Your task to perform on an android device: remove spam from my inbox in the gmail app Image 0: 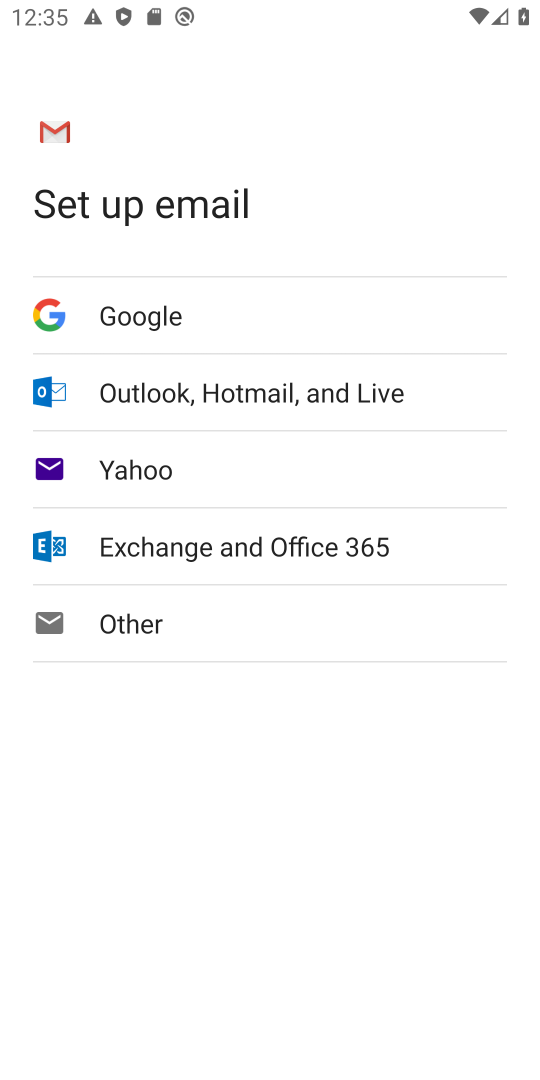
Step 0: press home button
Your task to perform on an android device: remove spam from my inbox in the gmail app Image 1: 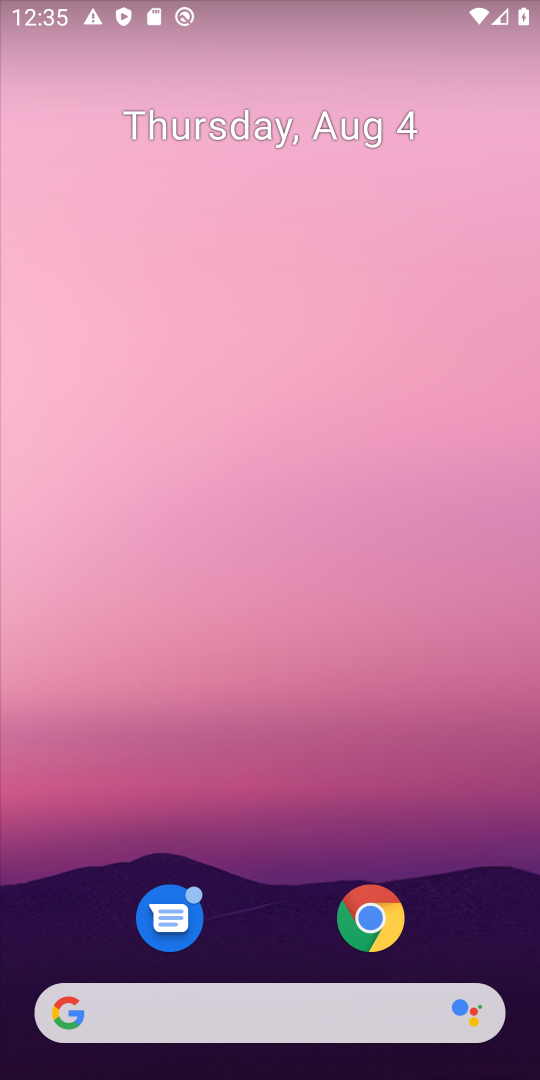
Step 1: drag from (293, 948) to (288, 207)
Your task to perform on an android device: remove spam from my inbox in the gmail app Image 2: 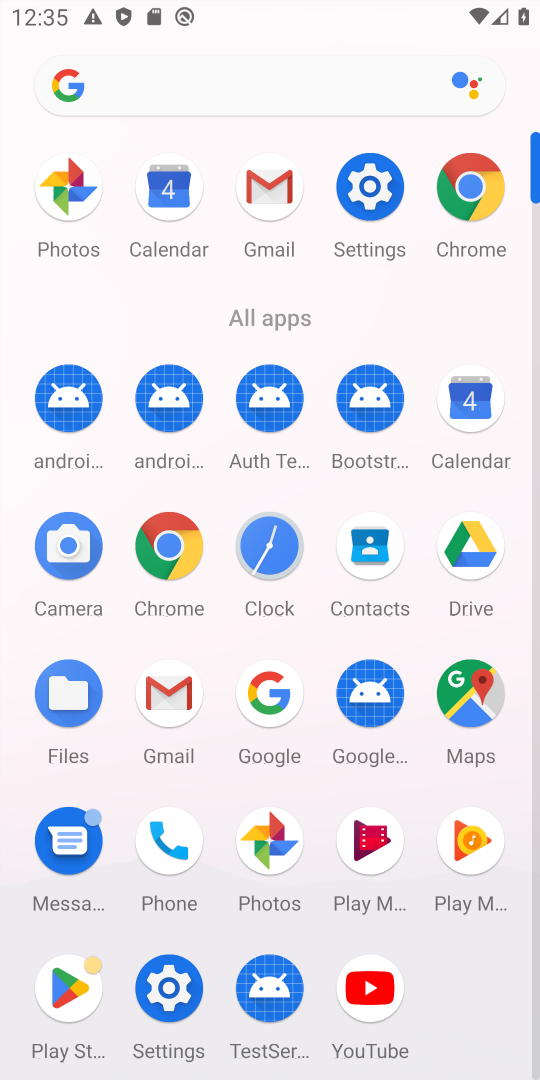
Step 2: click (260, 199)
Your task to perform on an android device: remove spam from my inbox in the gmail app Image 3: 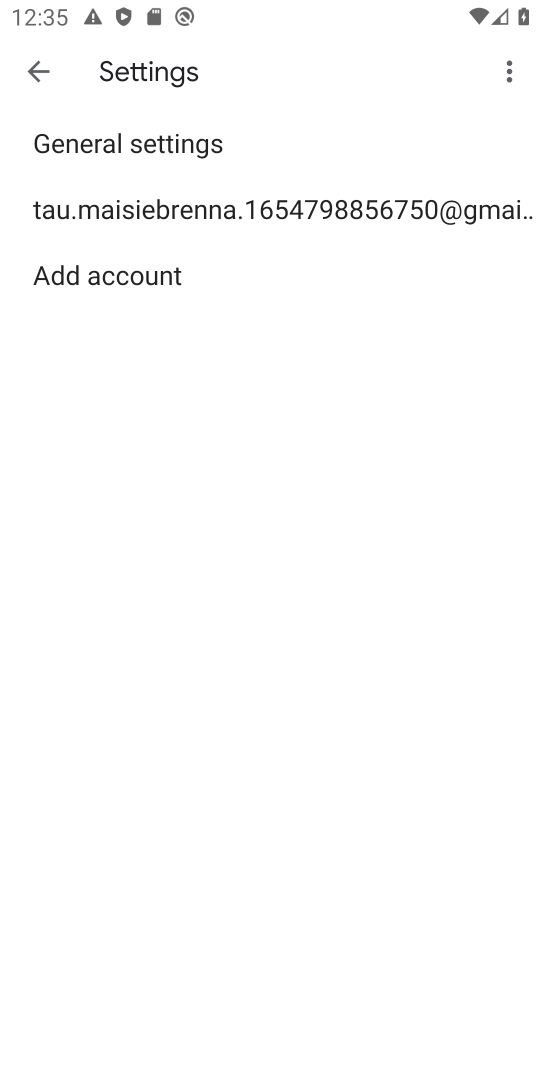
Step 3: click (85, 221)
Your task to perform on an android device: remove spam from my inbox in the gmail app Image 4: 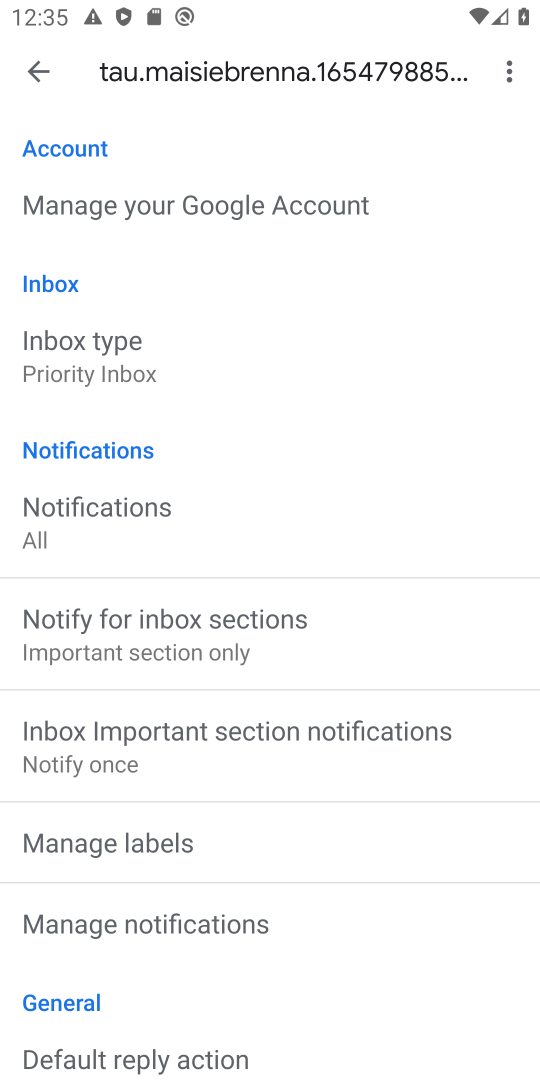
Step 4: click (26, 82)
Your task to perform on an android device: remove spam from my inbox in the gmail app Image 5: 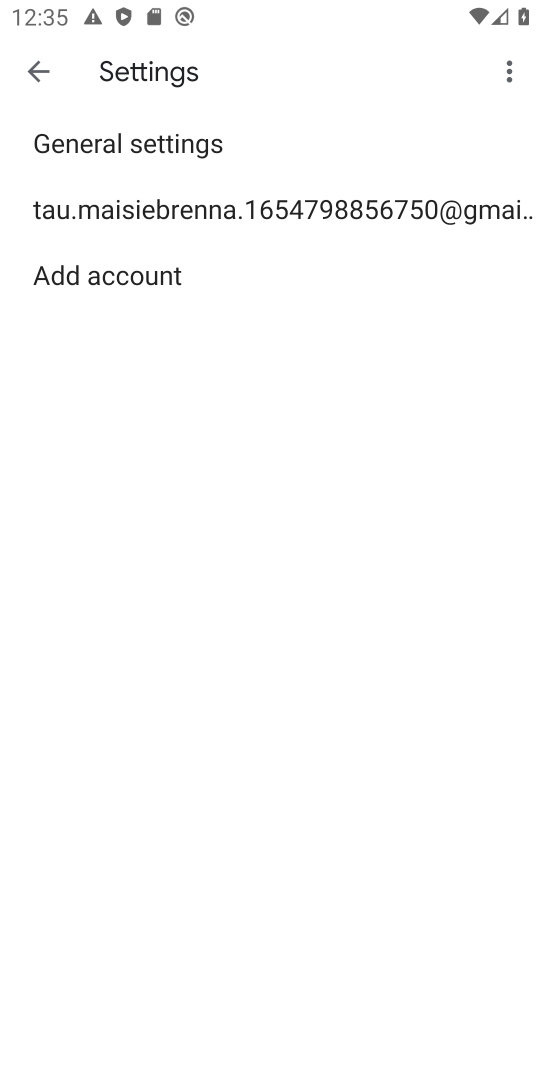
Step 5: click (26, 82)
Your task to perform on an android device: remove spam from my inbox in the gmail app Image 6: 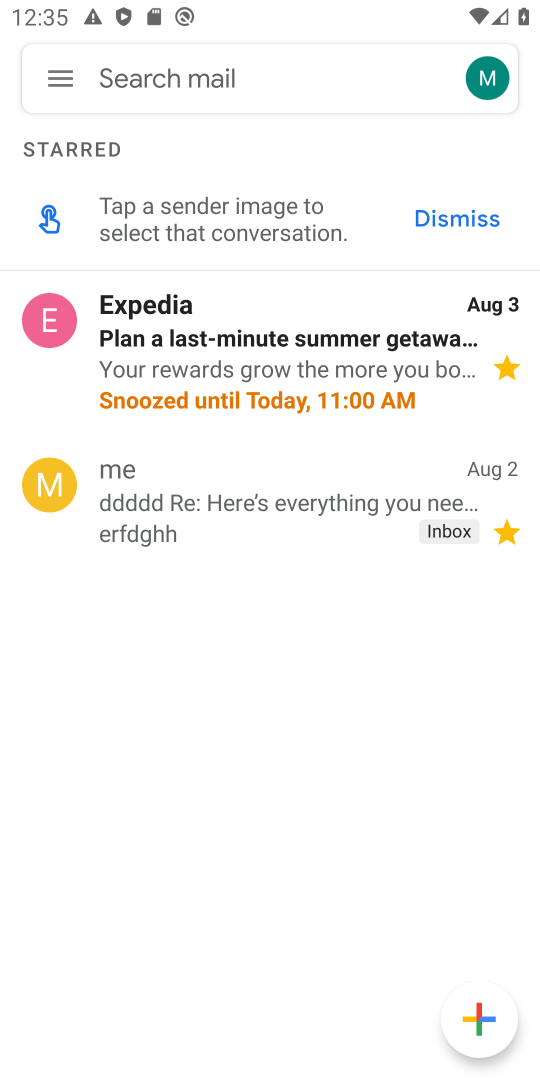
Step 6: click (51, 74)
Your task to perform on an android device: remove spam from my inbox in the gmail app Image 7: 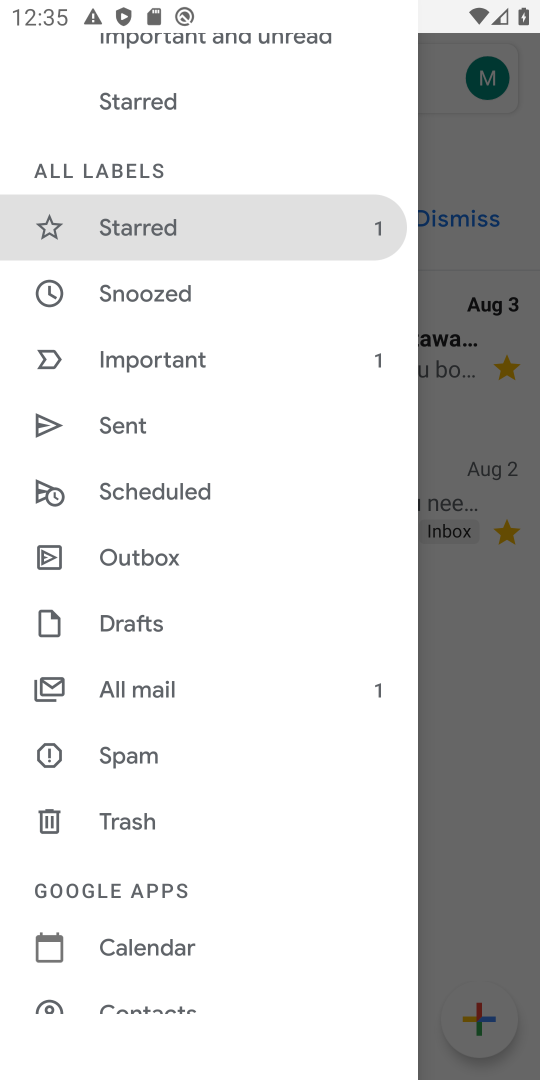
Step 7: click (190, 750)
Your task to perform on an android device: remove spam from my inbox in the gmail app Image 8: 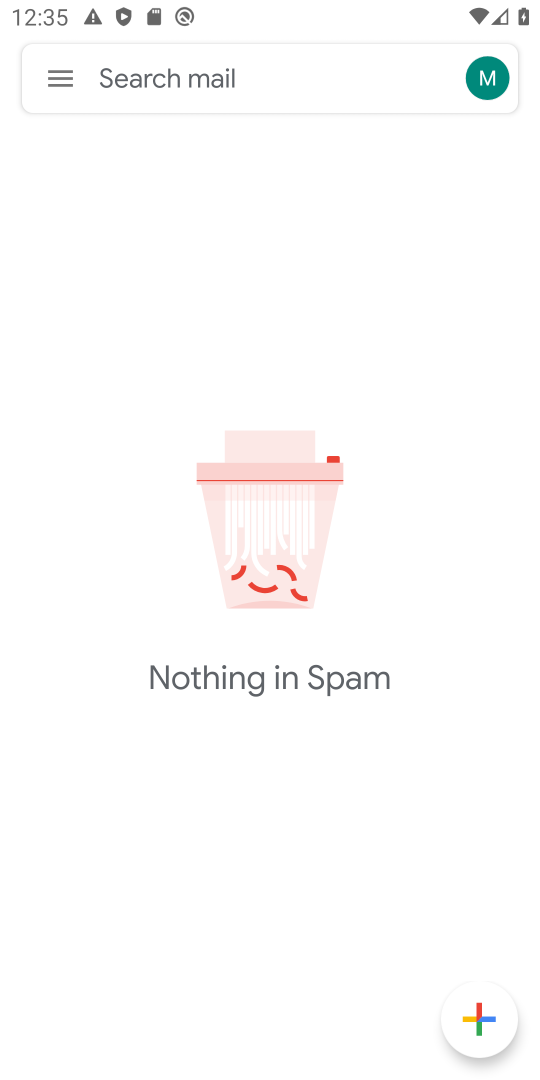
Step 8: task complete